Your task to perform on an android device: Is it going to rain today? Image 0: 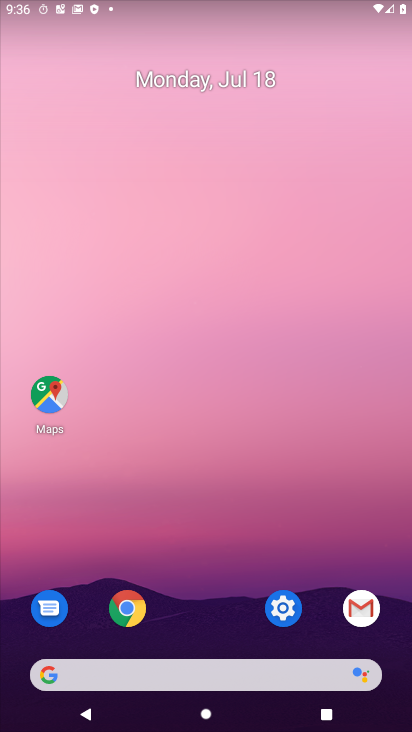
Step 0: click (220, 682)
Your task to perform on an android device: Is it going to rain today? Image 1: 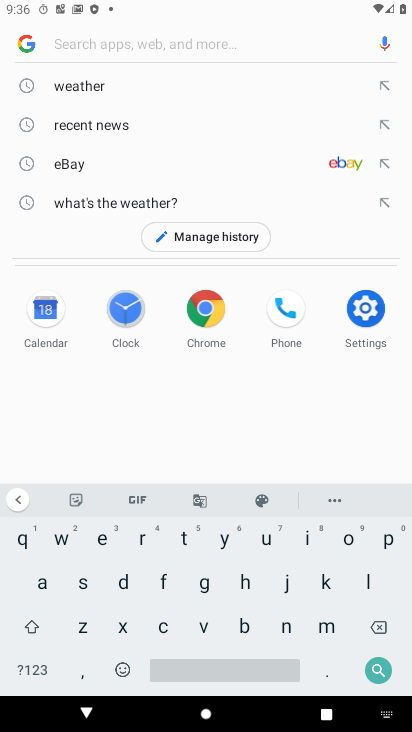
Step 1: click (201, 578)
Your task to perform on an android device: Is it going to rain today? Image 2: 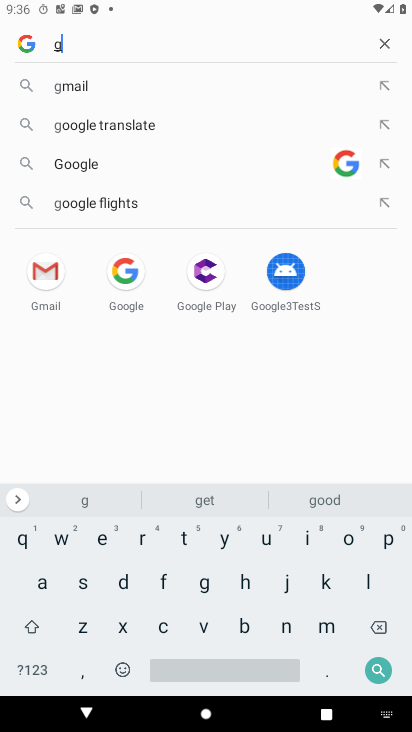
Step 2: click (351, 537)
Your task to perform on an android device: Is it going to rain today? Image 3: 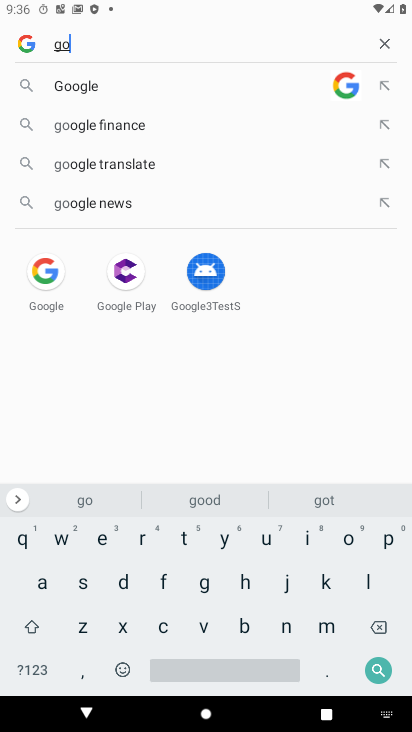
Step 3: click (298, 539)
Your task to perform on an android device: Is it going to rain today? Image 4: 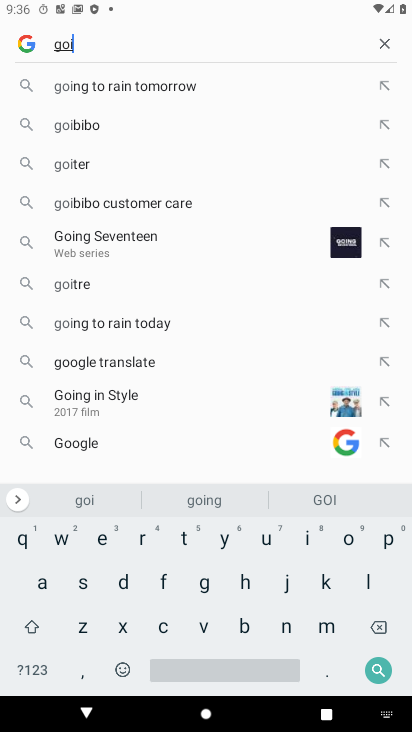
Step 4: click (140, 320)
Your task to perform on an android device: Is it going to rain today? Image 5: 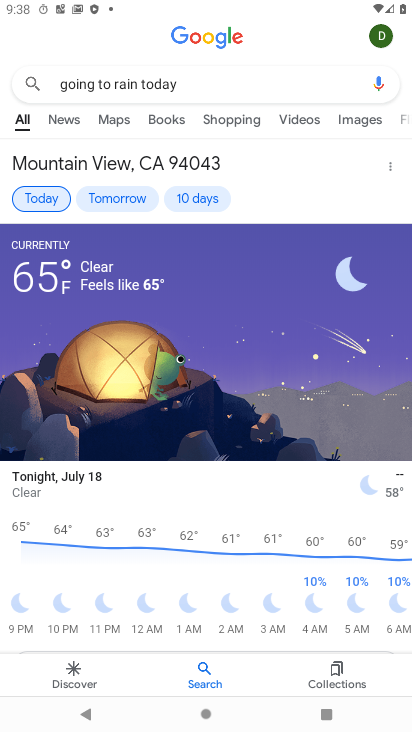
Step 5: task complete